Your task to perform on an android device: check the backup settings in the google photos Image 0: 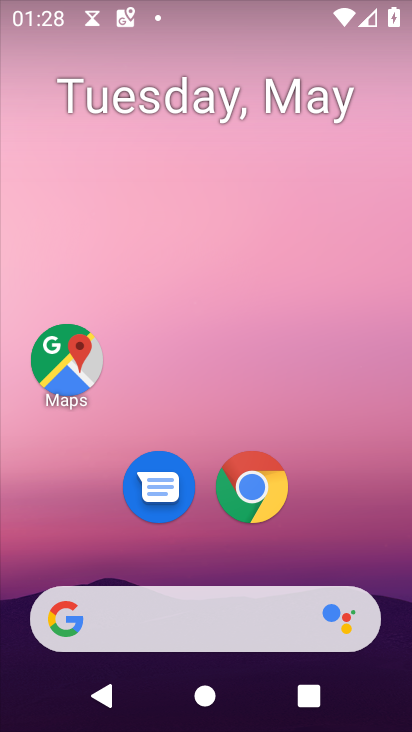
Step 0: drag from (301, 561) to (286, 218)
Your task to perform on an android device: check the backup settings in the google photos Image 1: 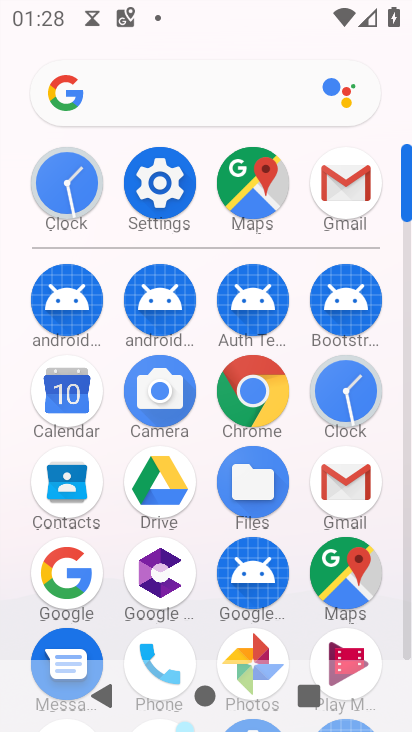
Step 1: drag from (250, 657) to (258, 310)
Your task to perform on an android device: check the backup settings in the google photos Image 2: 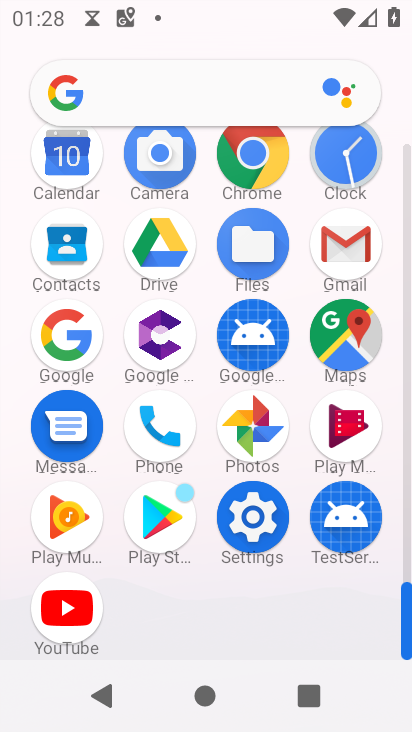
Step 2: click (269, 439)
Your task to perform on an android device: check the backup settings in the google photos Image 3: 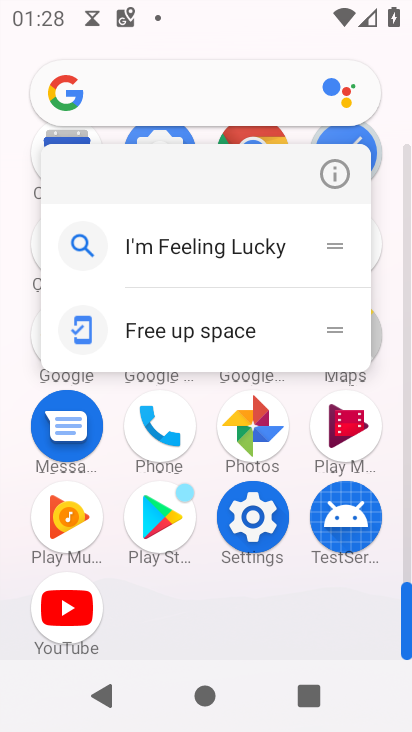
Step 3: click (268, 436)
Your task to perform on an android device: check the backup settings in the google photos Image 4: 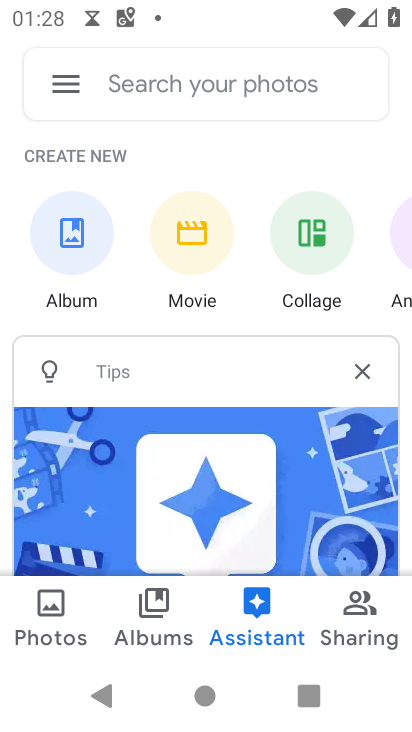
Step 4: click (54, 85)
Your task to perform on an android device: check the backup settings in the google photos Image 5: 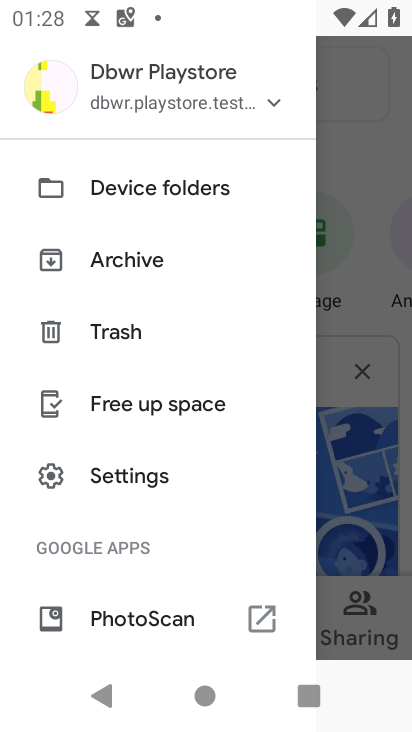
Step 5: click (149, 486)
Your task to perform on an android device: check the backup settings in the google photos Image 6: 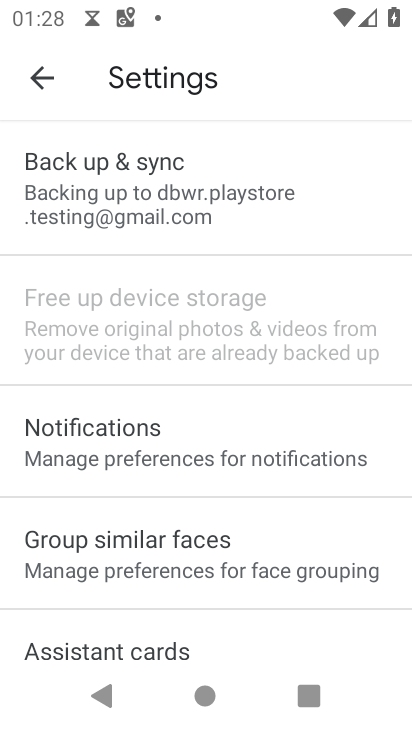
Step 6: click (70, 159)
Your task to perform on an android device: check the backup settings in the google photos Image 7: 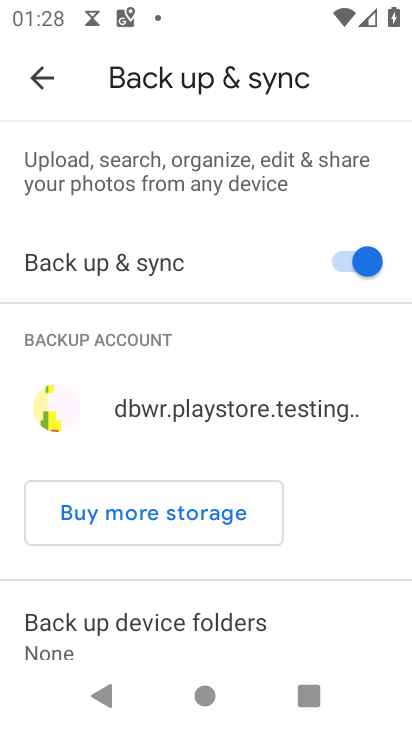
Step 7: task complete